Your task to perform on an android device: Search for sushi restaurants on Maps Image 0: 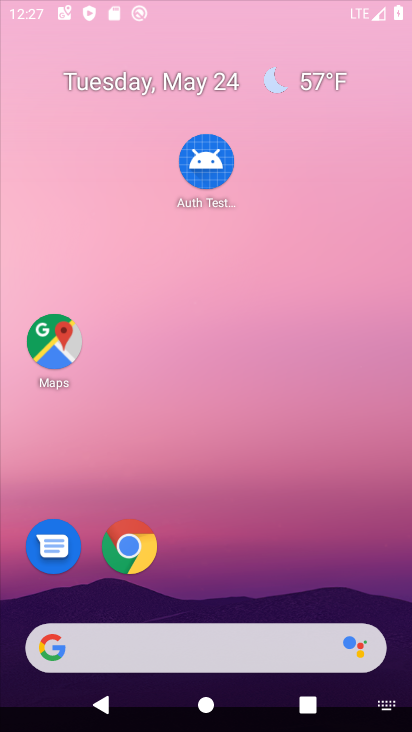
Step 0: drag from (213, 525) to (300, 164)
Your task to perform on an android device: Search for sushi restaurants on Maps Image 1: 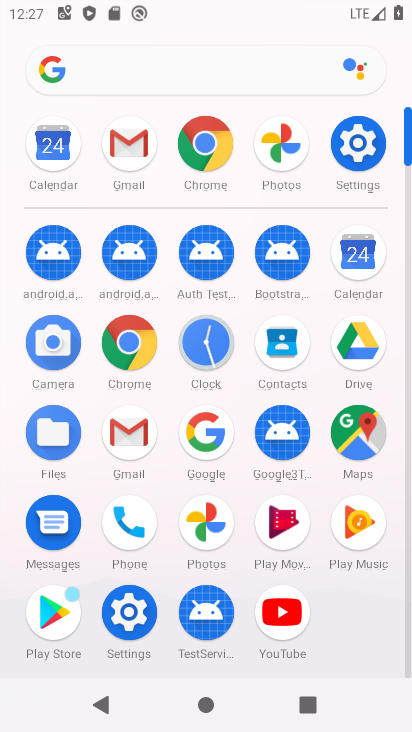
Step 1: click (354, 430)
Your task to perform on an android device: Search for sushi restaurants on Maps Image 2: 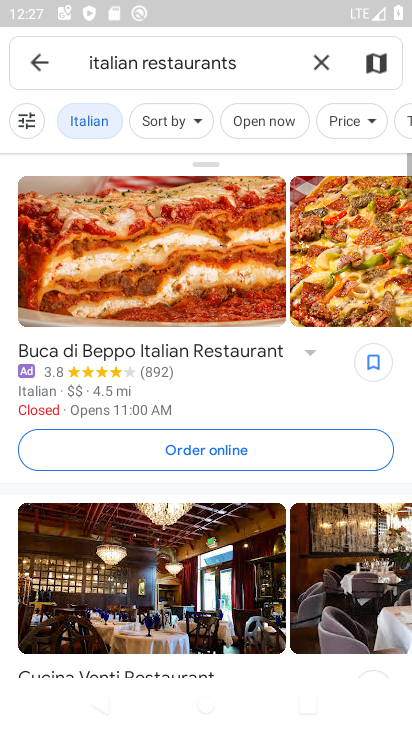
Step 2: drag from (209, 678) to (223, 407)
Your task to perform on an android device: Search for sushi restaurants on Maps Image 3: 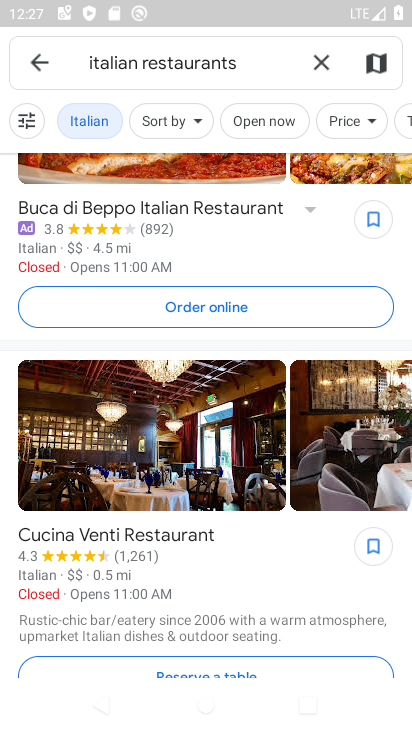
Step 3: click (317, 68)
Your task to perform on an android device: Search for sushi restaurants on Maps Image 4: 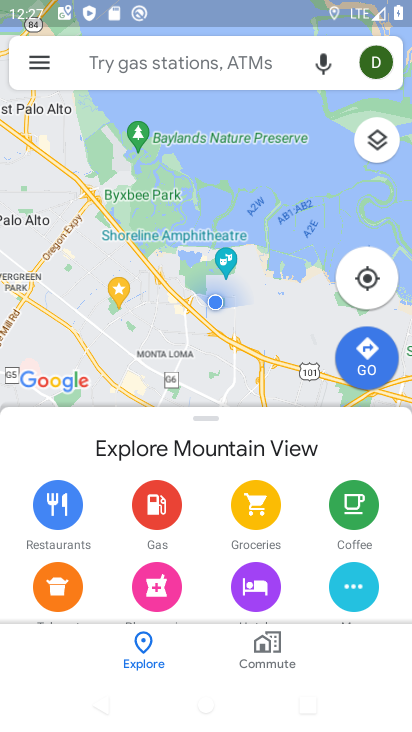
Step 4: drag from (197, 676) to (221, 346)
Your task to perform on an android device: Search for sushi restaurants on Maps Image 5: 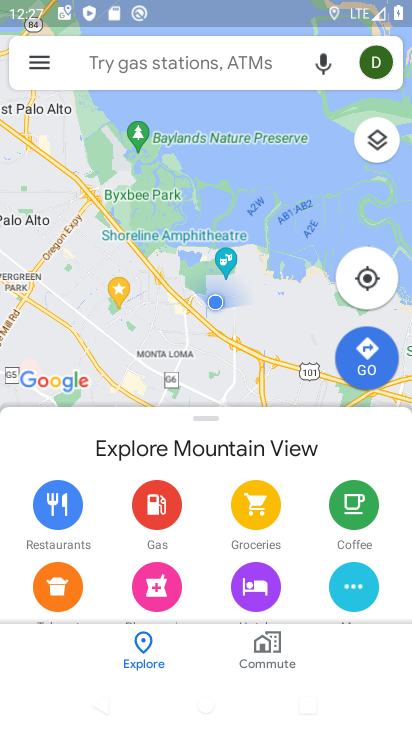
Step 5: click (218, 65)
Your task to perform on an android device: Search for sushi restaurants on Maps Image 6: 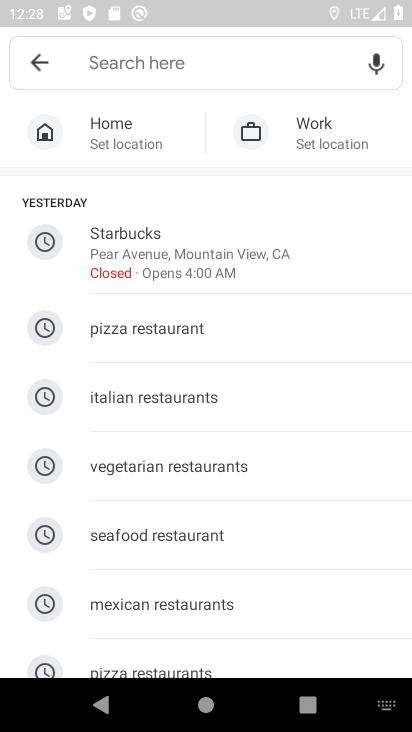
Step 6: drag from (172, 581) to (209, 90)
Your task to perform on an android device: Search for sushi restaurants on Maps Image 7: 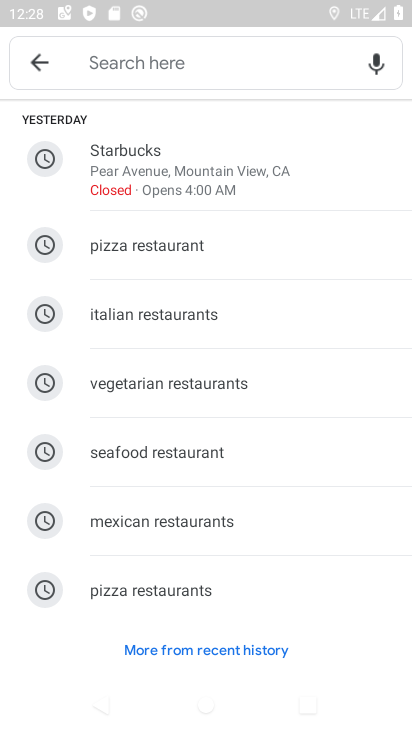
Step 7: click (147, 69)
Your task to perform on an android device: Search for sushi restaurants on Maps Image 8: 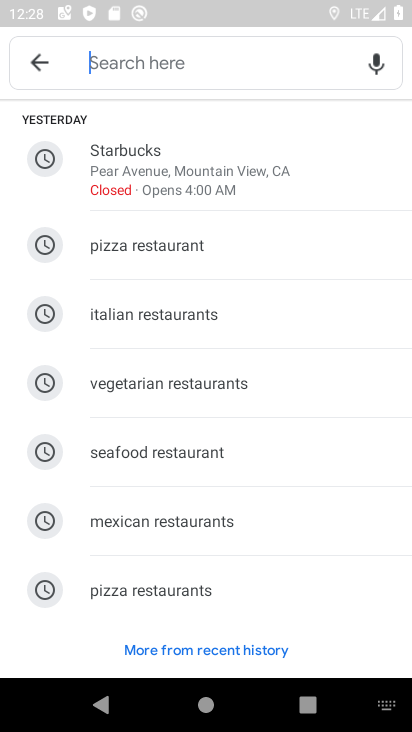
Step 8: type "sushi restaurants"
Your task to perform on an android device: Search for sushi restaurants on Maps Image 9: 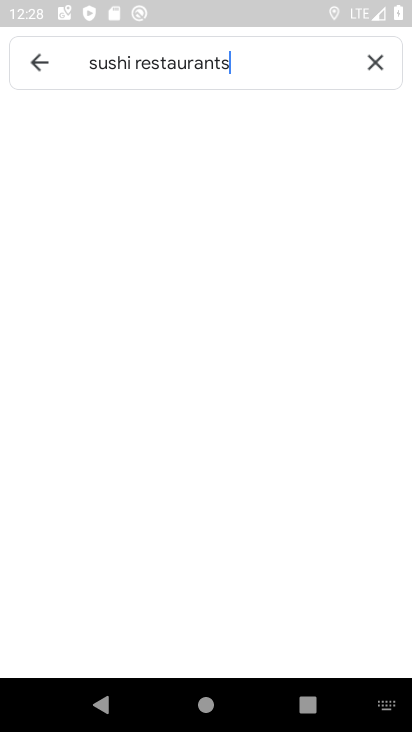
Step 9: type ""
Your task to perform on an android device: Search for sushi restaurants on Maps Image 10: 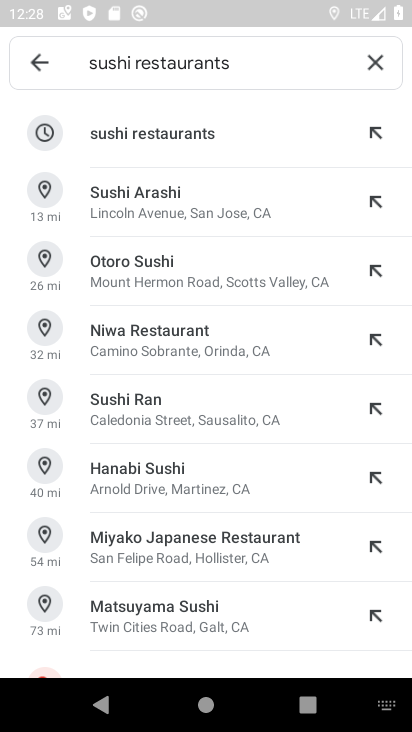
Step 10: click (175, 139)
Your task to perform on an android device: Search for sushi restaurants on Maps Image 11: 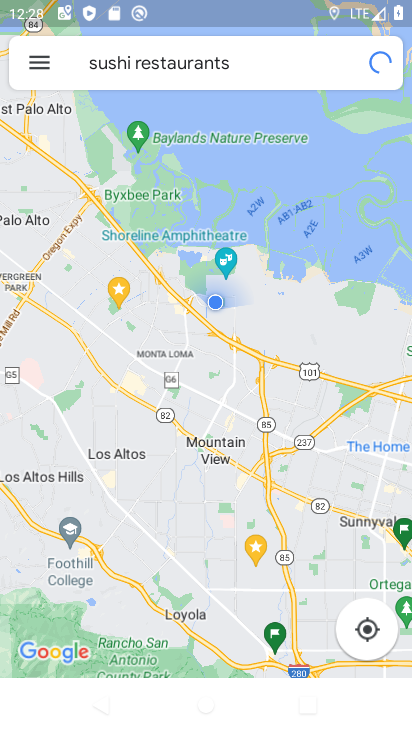
Step 11: task complete